Your task to perform on an android device: Open notification settings Image 0: 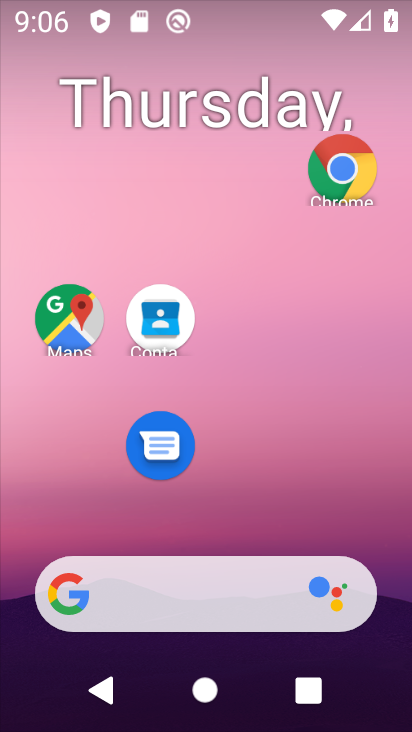
Step 0: drag from (218, 611) to (265, 125)
Your task to perform on an android device: Open notification settings Image 1: 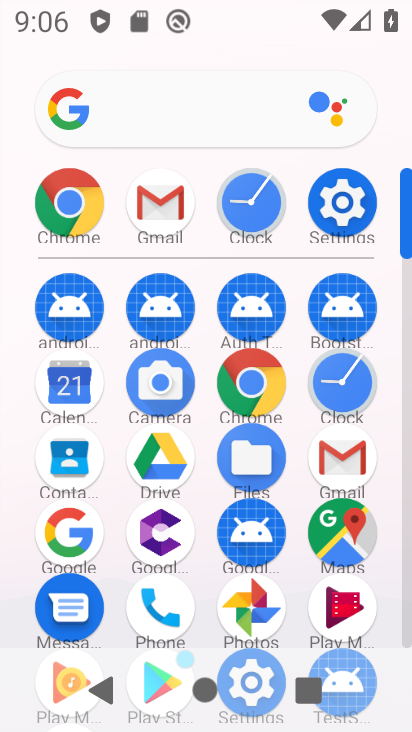
Step 1: click (330, 205)
Your task to perform on an android device: Open notification settings Image 2: 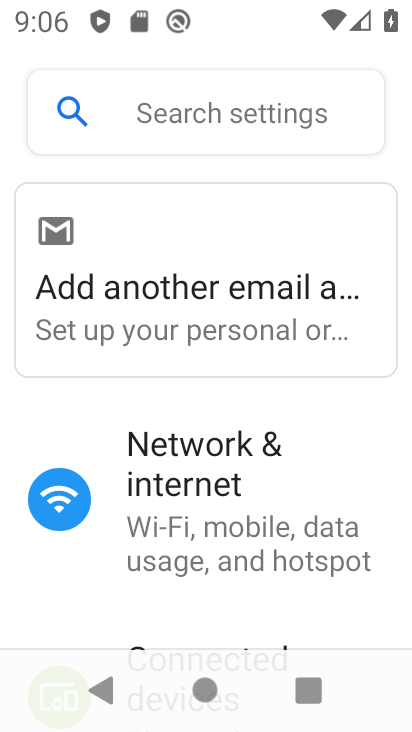
Step 2: drag from (211, 139) to (222, 358)
Your task to perform on an android device: Open notification settings Image 3: 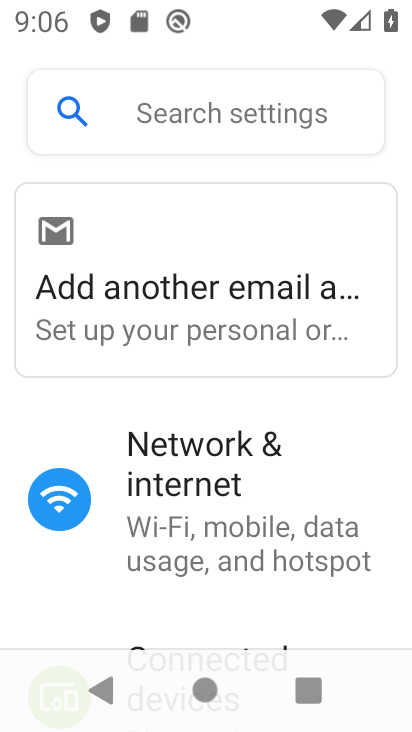
Step 3: click (177, 135)
Your task to perform on an android device: Open notification settings Image 4: 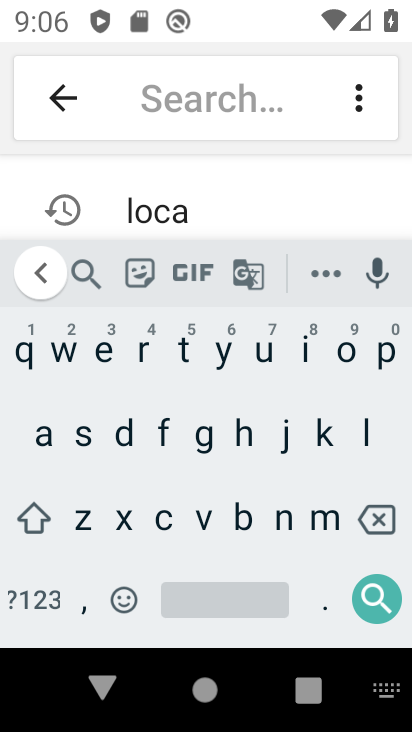
Step 4: click (287, 529)
Your task to perform on an android device: Open notification settings Image 5: 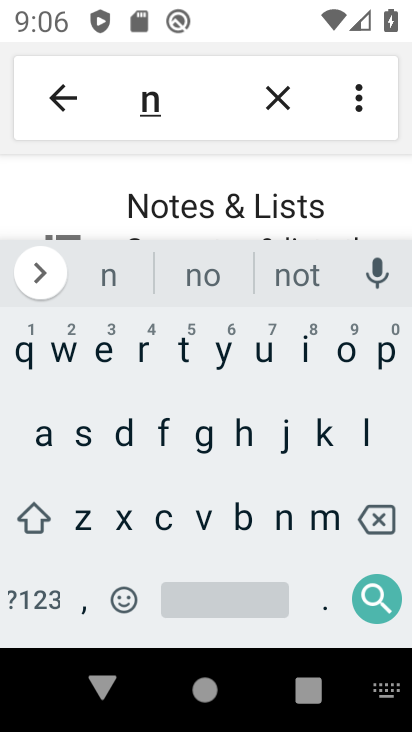
Step 5: click (342, 365)
Your task to perform on an android device: Open notification settings Image 6: 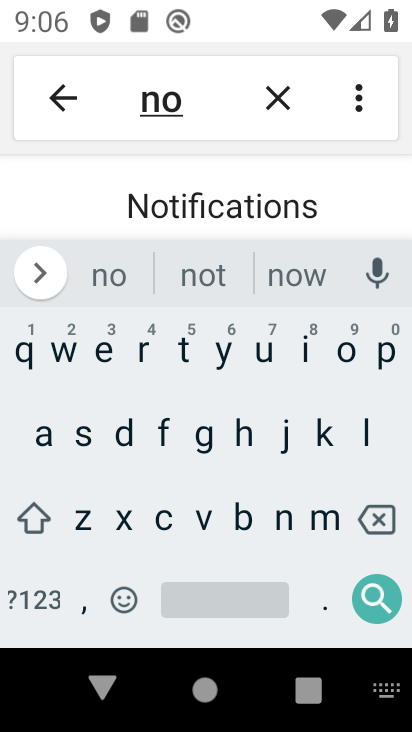
Step 6: press back button
Your task to perform on an android device: Open notification settings Image 7: 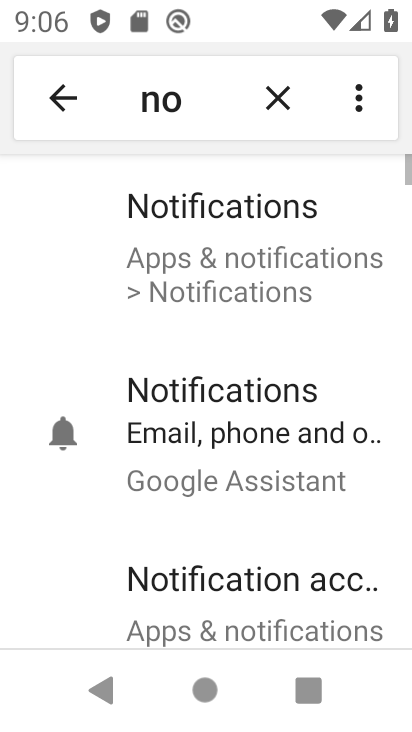
Step 7: click (243, 266)
Your task to perform on an android device: Open notification settings Image 8: 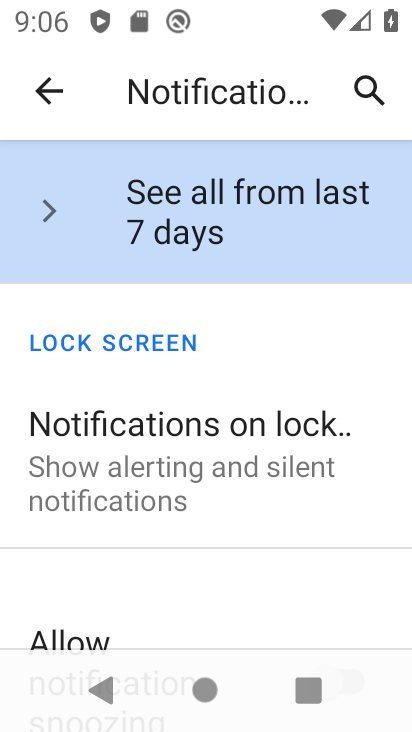
Step 8: drag from (194, 332) to (154, 418)
Your task to perform on an android device: Open notification settings Image 9: 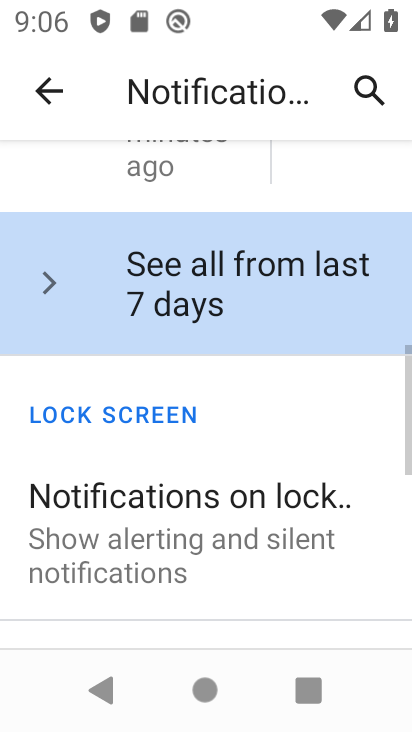
Step 9: click (139, 451)
Your task to perform on an android device: Open notification settings Image 10: 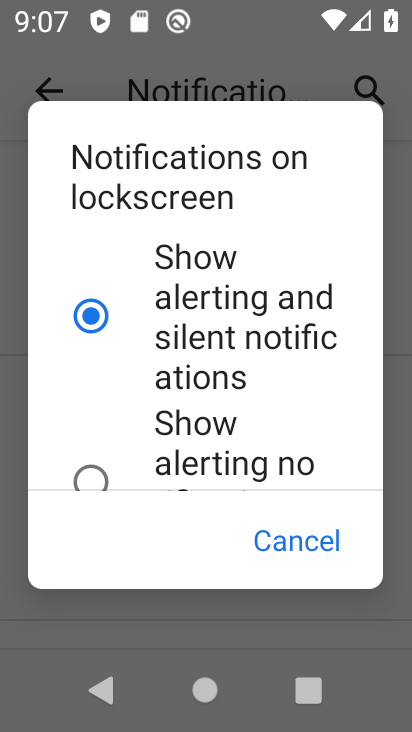
Step 10: task complete